Your task to perform on an android device: open app "Adobe Acrobat Reader" Image 0: 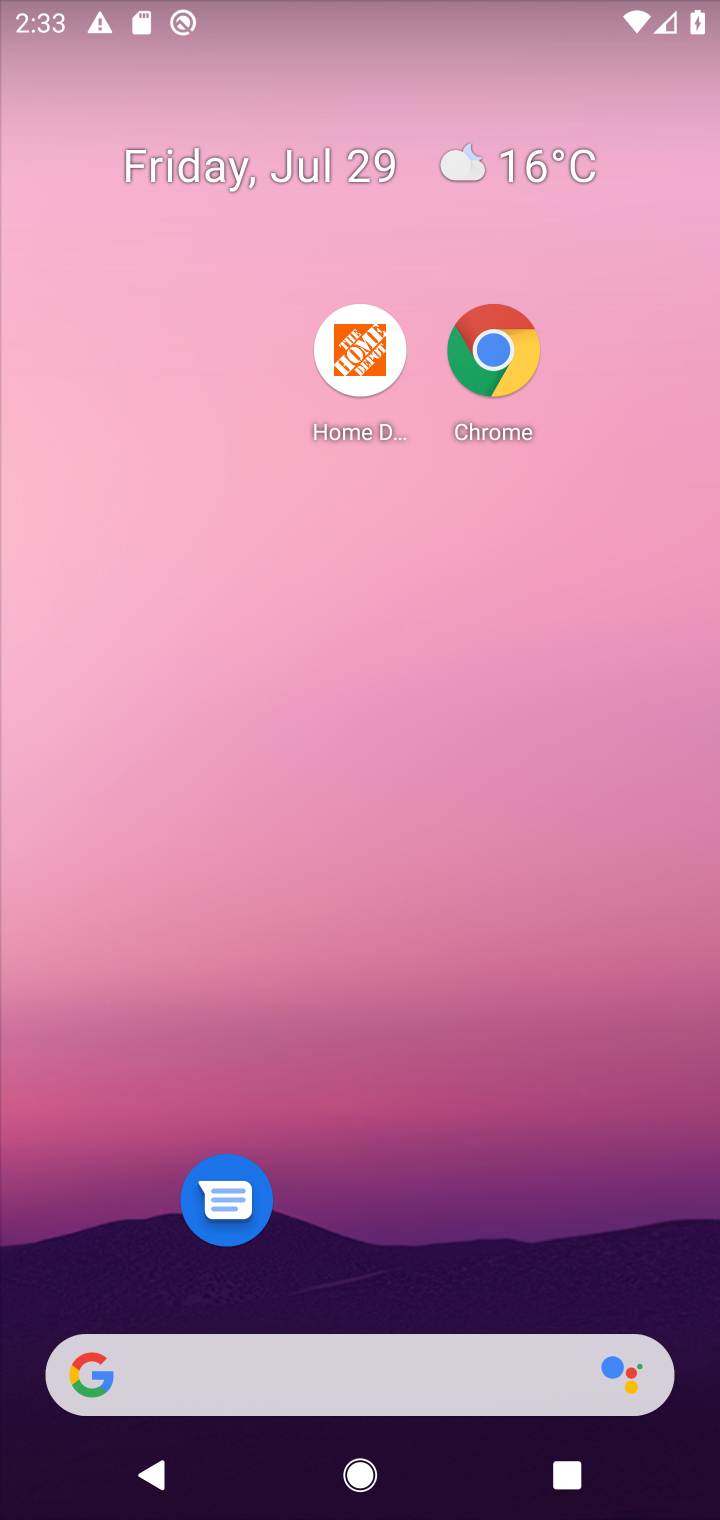
Step 0: drag from (571, 1230) to (564, 72)
Your task to perform on an android device: open app "Adobe Acrobat Reader" Image 1: 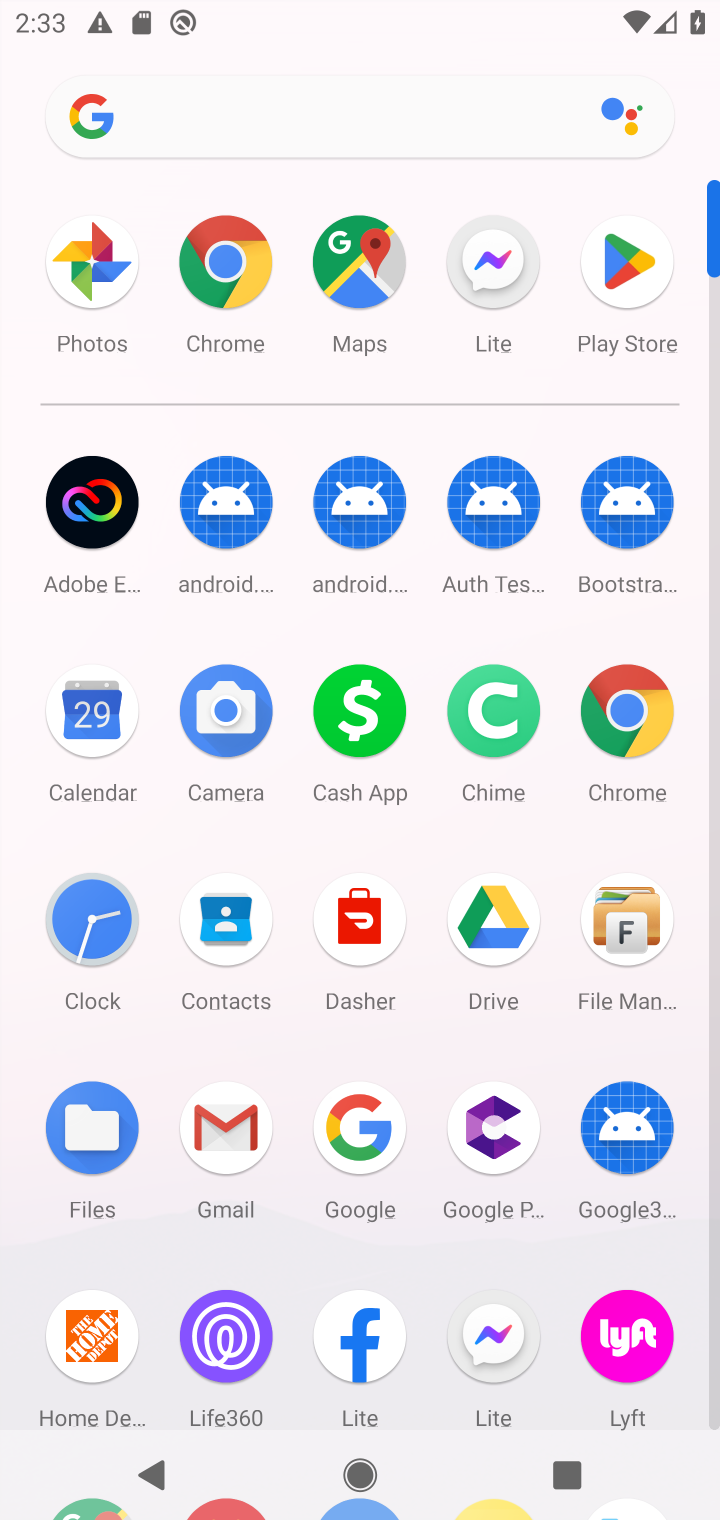
Step 1: drag from (425, 1226) to (486, 471)
Your task to perform on an android device: open app "Adobe Acrobat Reader" Image 2: 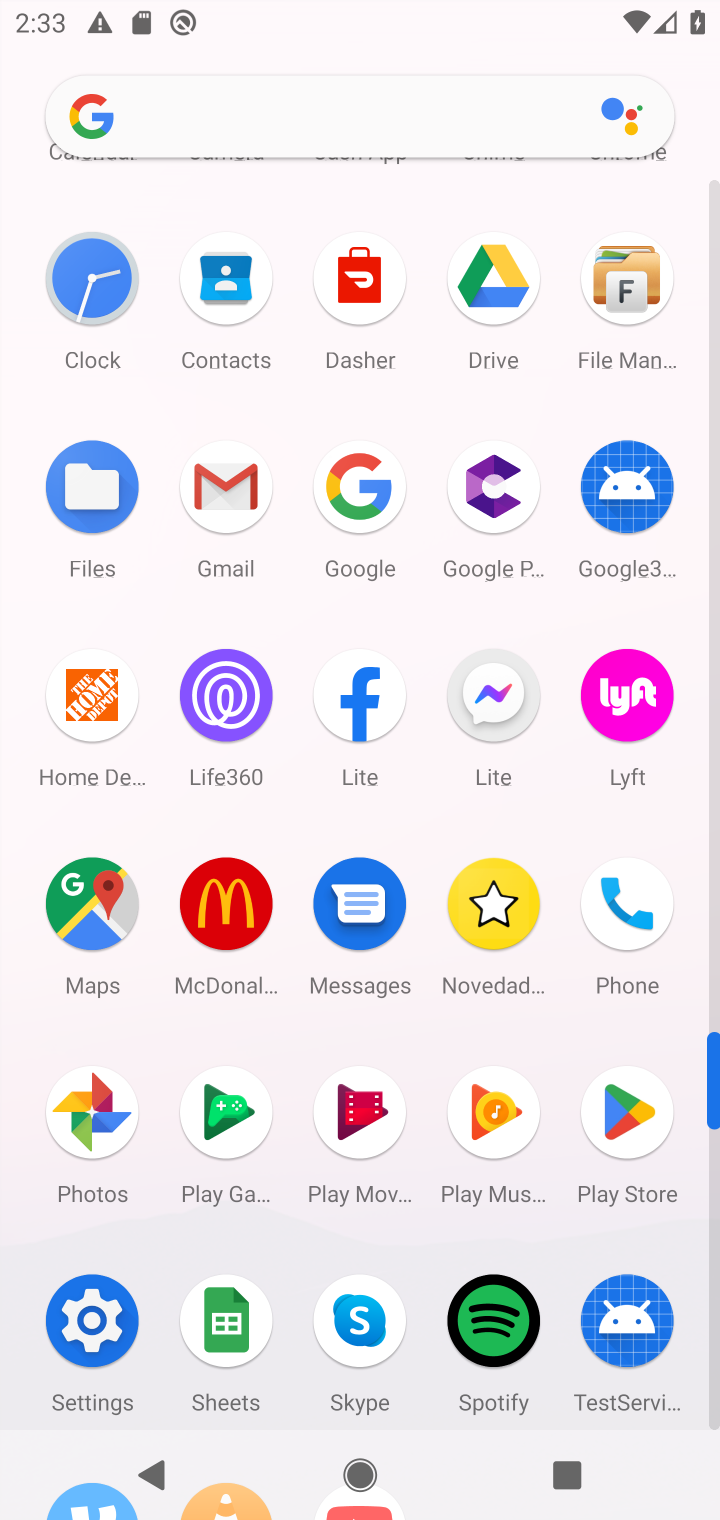
Step 2: click (624, 1114)
Your task to perform on an android device: open app "Adobe Acrobat Reader" Image 3: 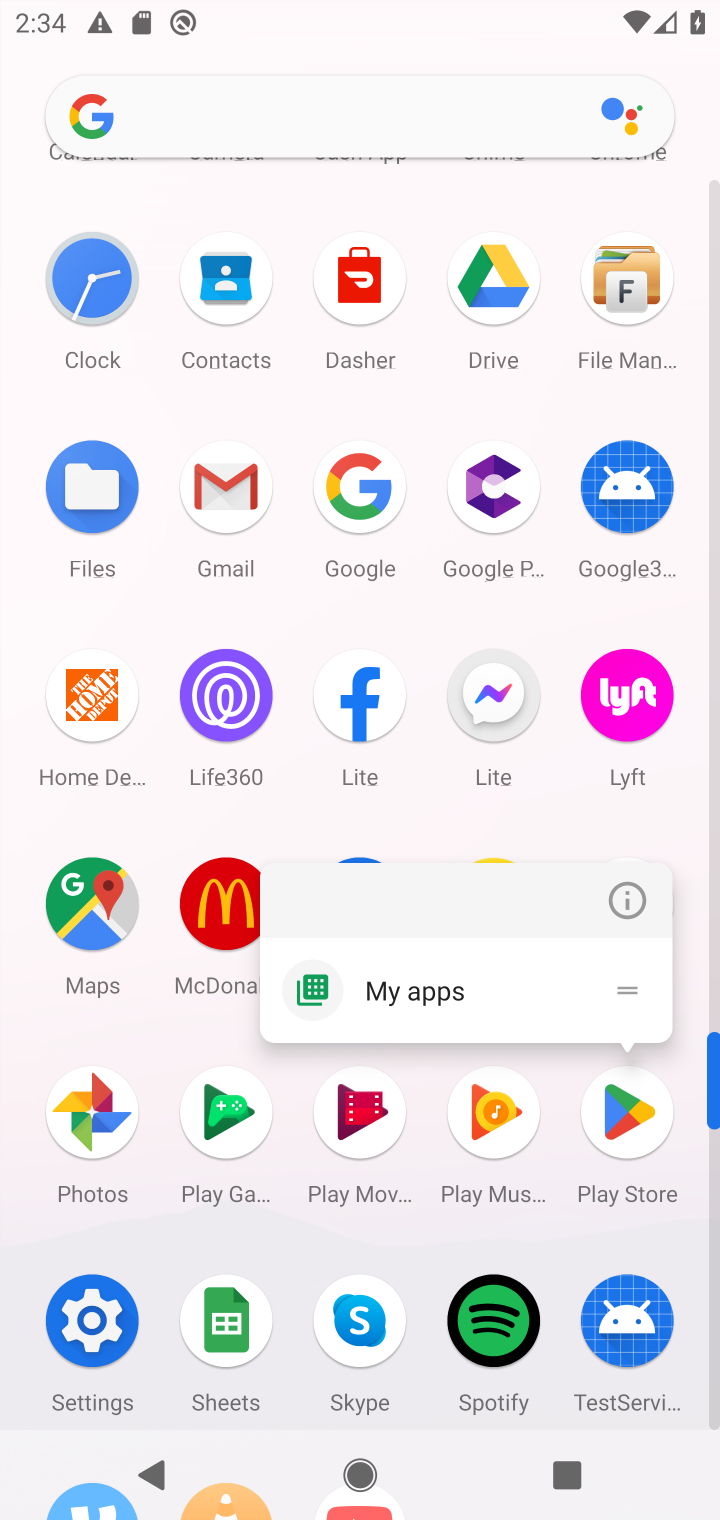
Step 3: click (610, 1125)
Your task to perform on an android device: open app "Adobe Acrobat Reader" Image 4: 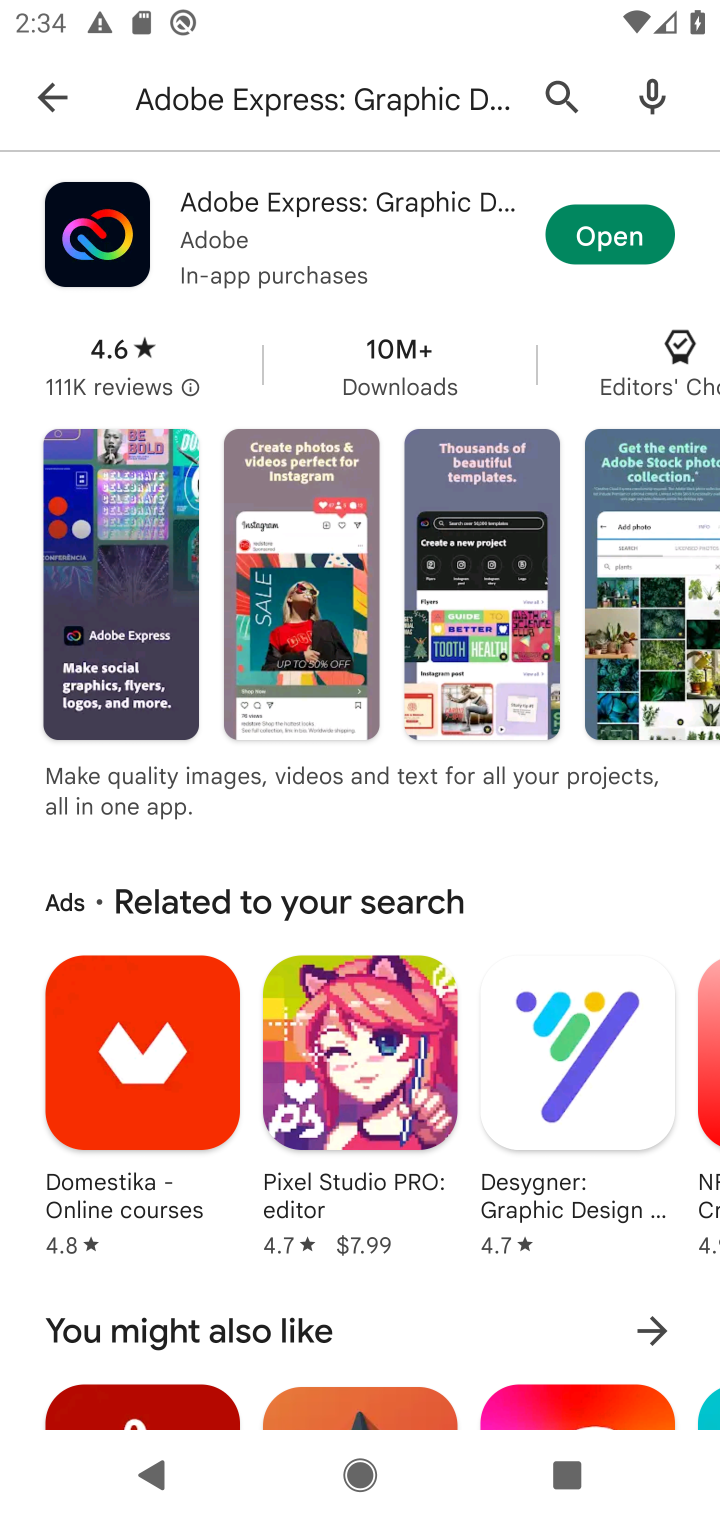
Step 4: click (330, 85)
Your task to perform on an android device: open app "Adobe Acrobat Reader" Image 5: 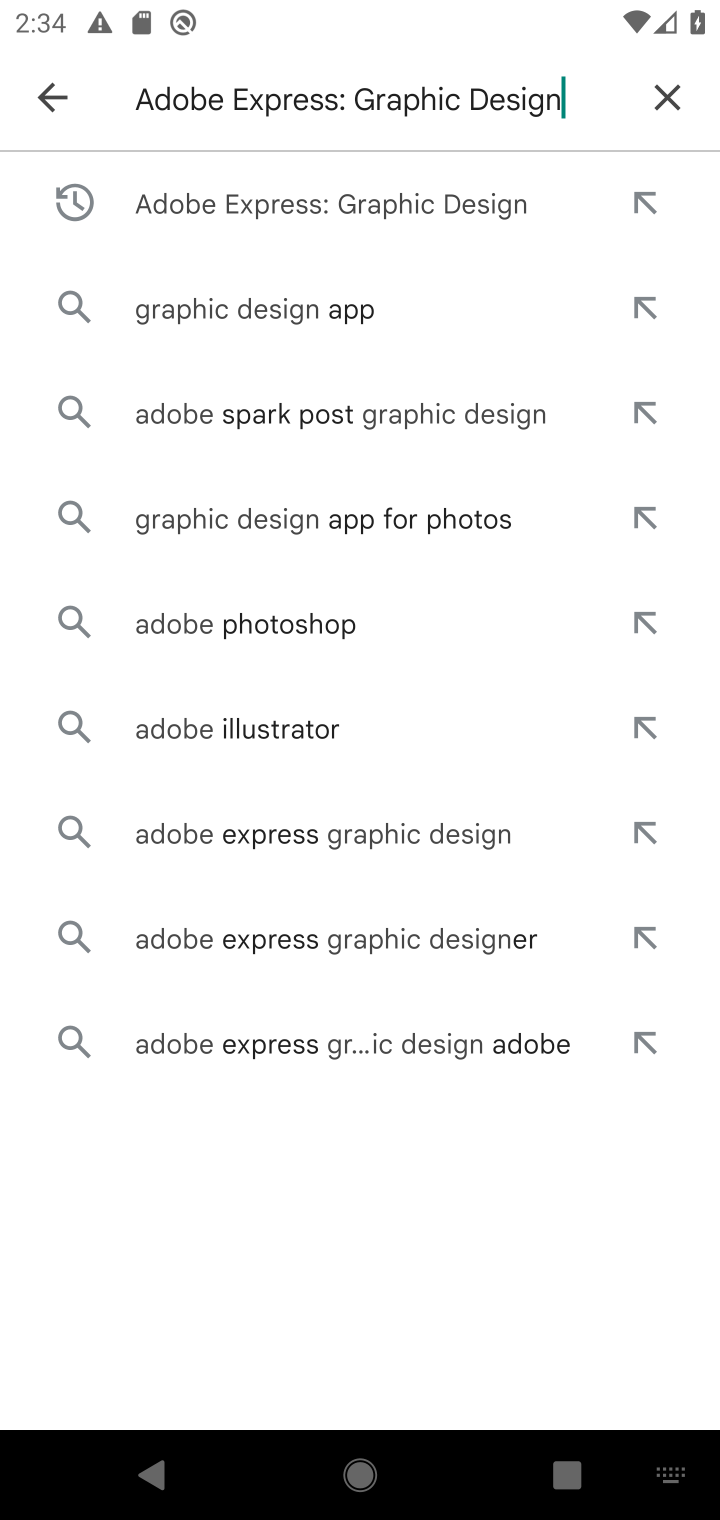
Step 5: click (664, 95)
Your task to perform on an android device: open app "Adobe Acrobat Reader" Image 6: 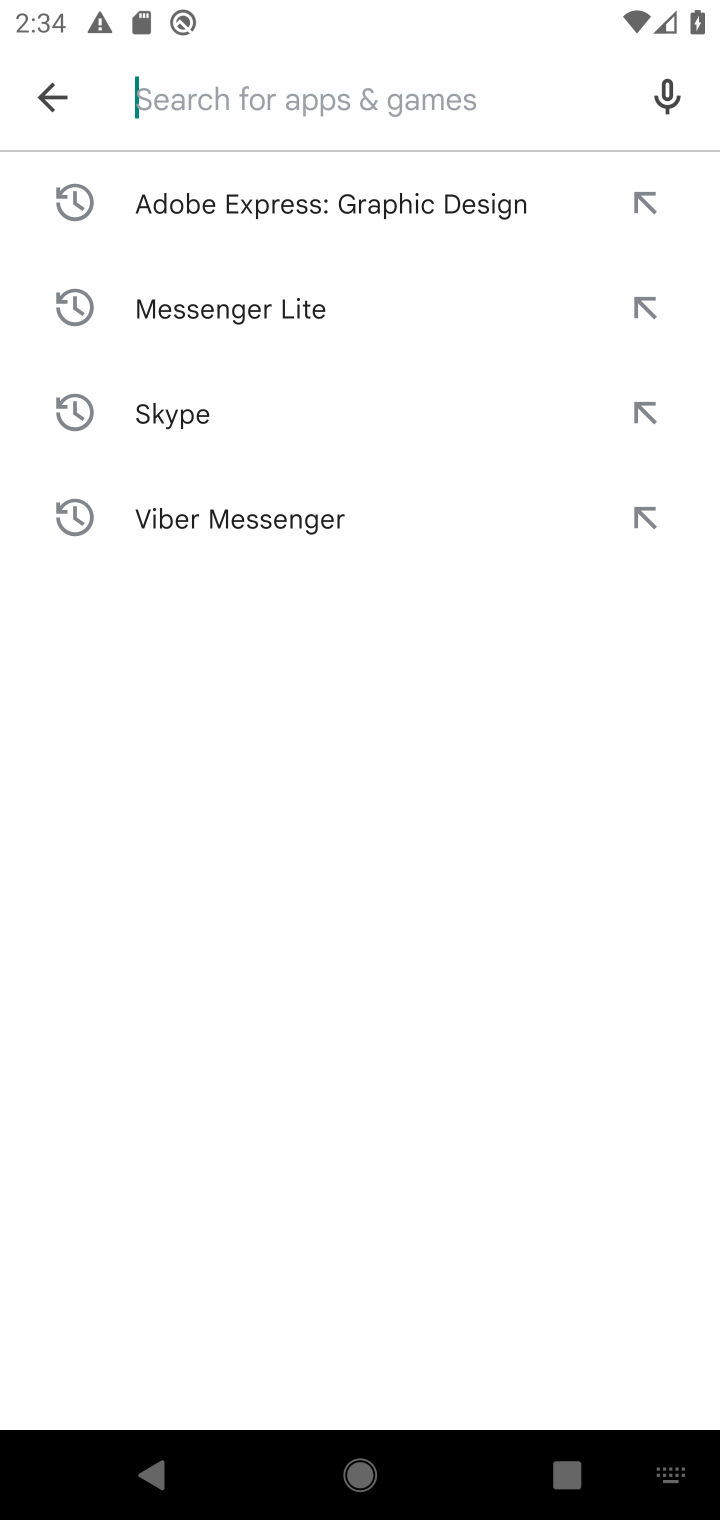
Step 6: type "Adobe Acrobat Reader"
Your task to perform on an android device: open app "Adobe Acrobat Reader" Image 7: 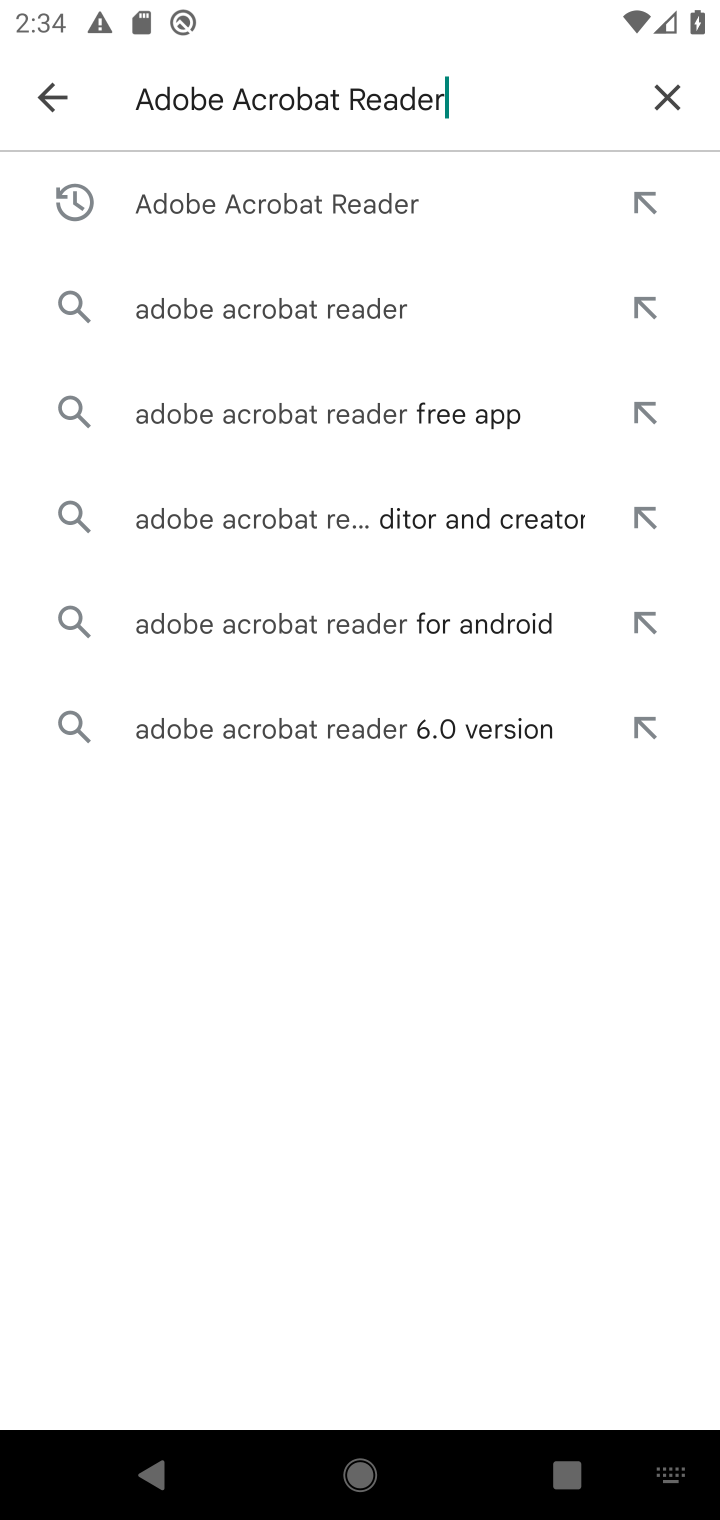
Step 7: press enter
Your task to perform on an android device: open app "Adobe Acrobat Reader" Image 8: 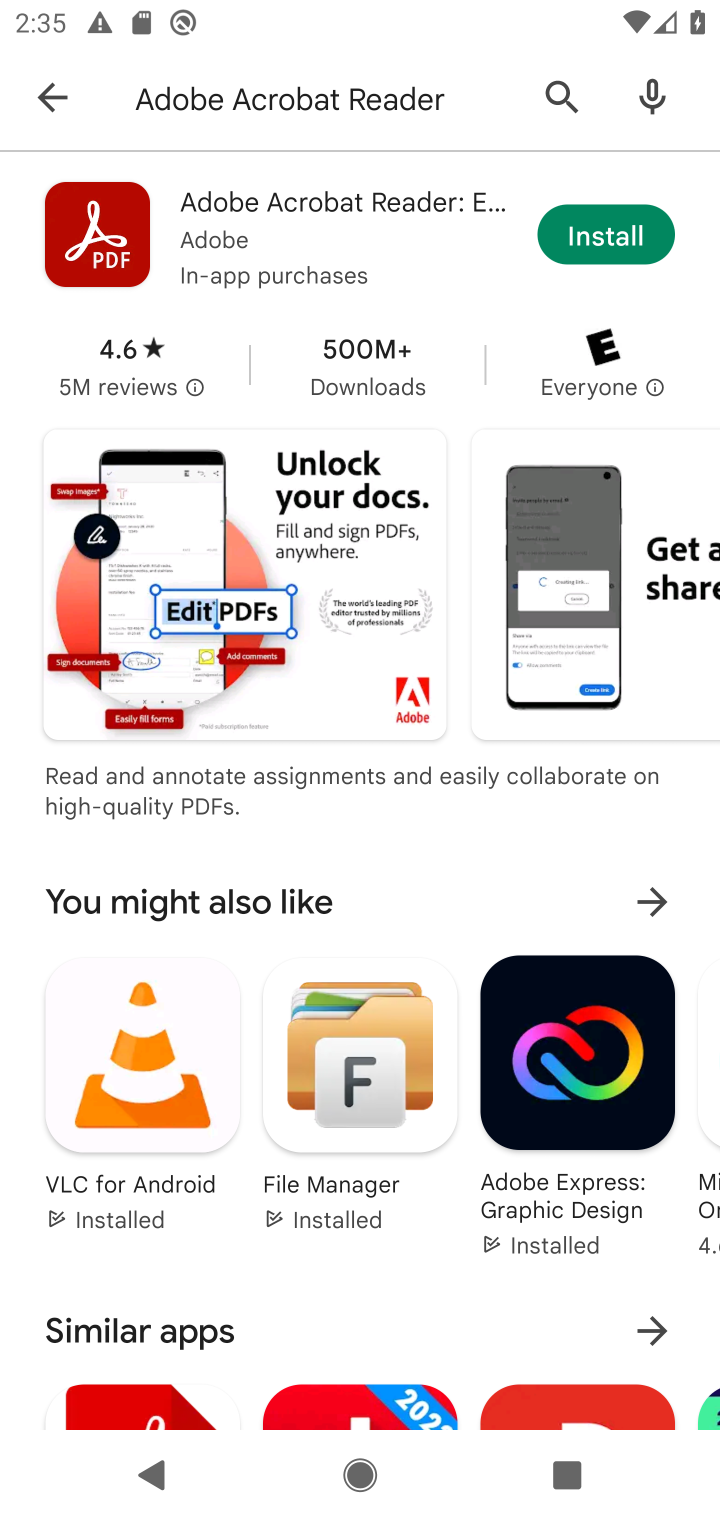
Step 8: task complete